Your task to perform on an android device: Open Google Chrome and open the bookmarks view Image 0: 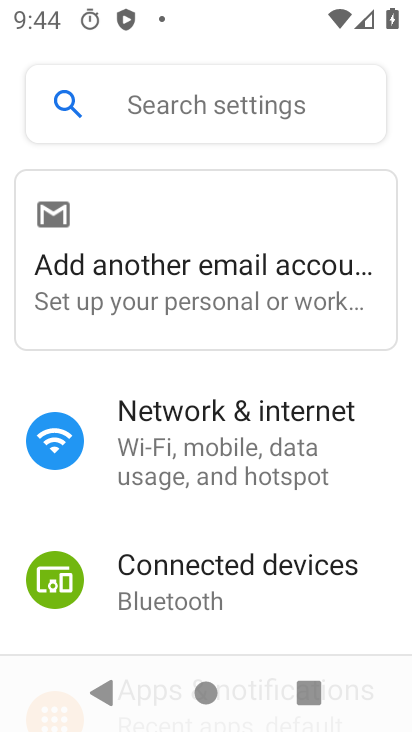
Step 0: press home button
Your task to perform on an android device: Open Google Chrome and open the bookmarks view Image 1: 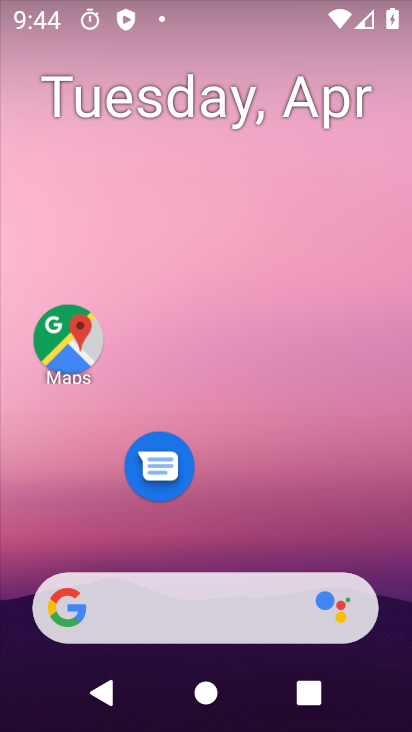
Step 1: drag from (323, 515) to (257, 111)
Your task to perform on an android device: Open Google Chrome and open the bookmarks view Image 2: 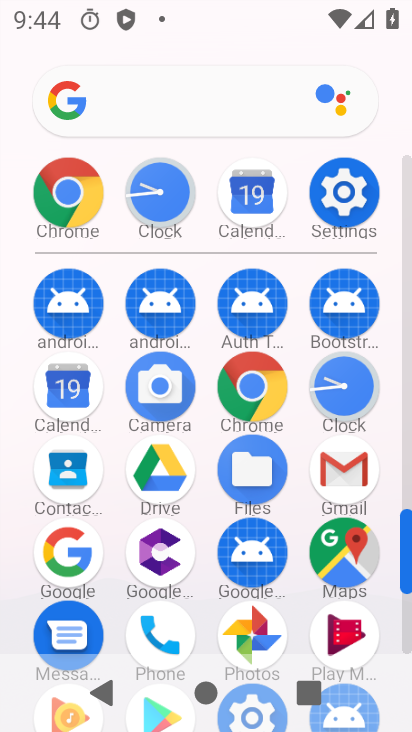
Step 2: click (247, 388)
Your task to perform on an android device: Open Google Chrome and open the bookmarks view Image 3: 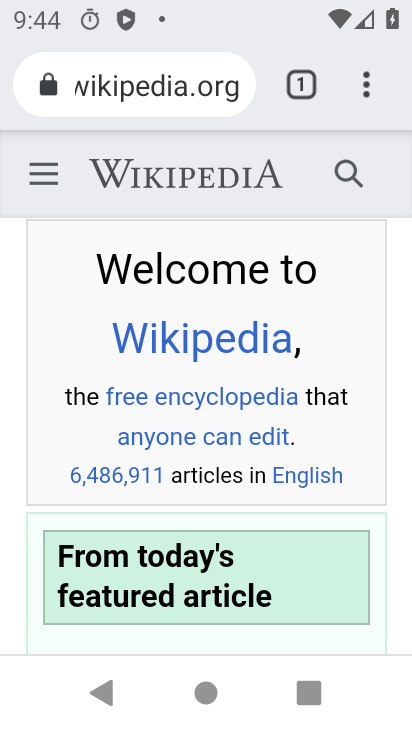
Step 3: click (371, 104)
Your task to perform on an android device: Open Google Chrome and open the bookmarks view Image 4: 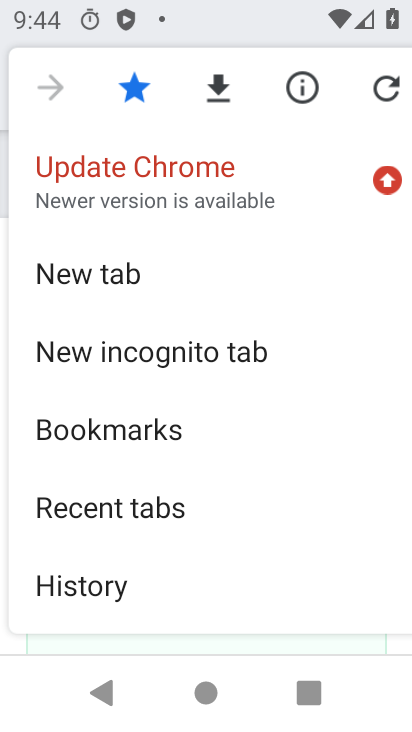
Step 4: drag from (324, 448) to (313, 301)
Your task to perform on an android device: Open Google Chrome and open the bookmarks view Image 5: 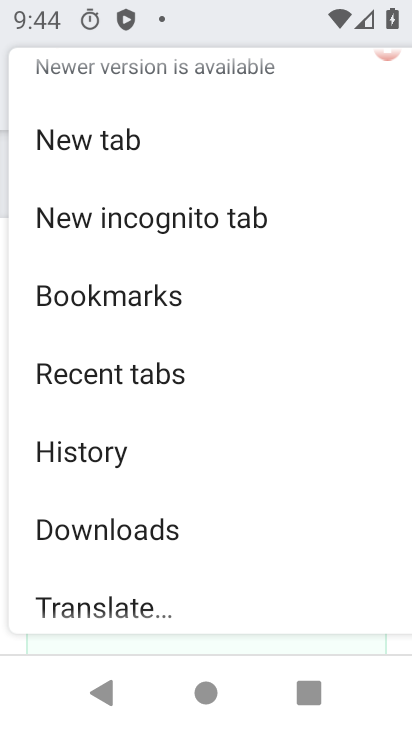
Step 5: drag from (255, 517) to (273, 185)
Your task to perform on an android device: Open Google Chrome and open the bookmarks view Image 6: 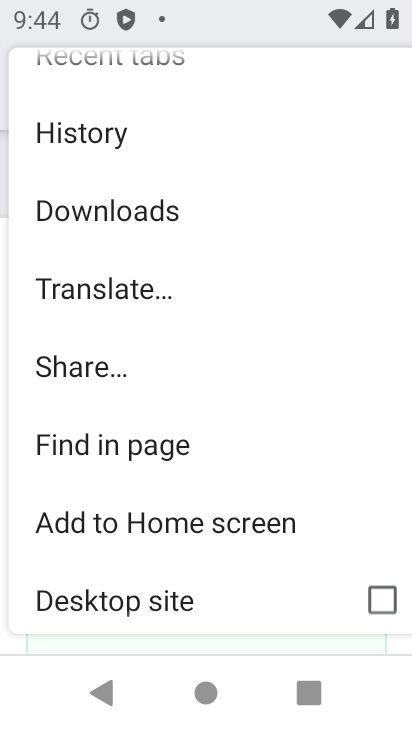
Step 6: drag from (256, 554) to (285, 307)
Your task to perform on an android device: Open Google Chrome and open the bookmarks view Image 7: 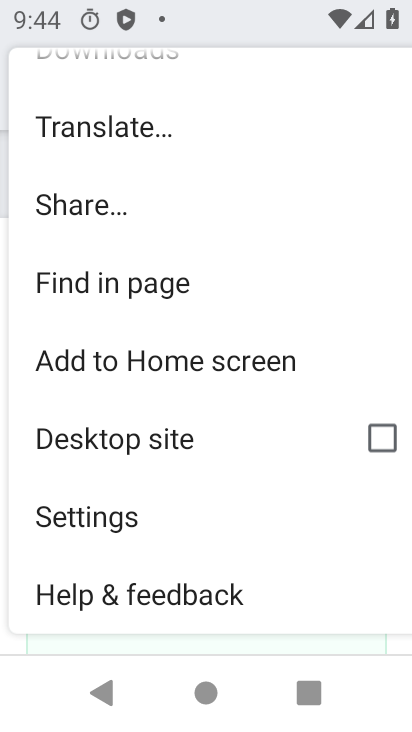
Step 7: drag from (261, 517) to (270, 267)
Your task to perform on an android device: Open Google Chrome and open the bookmarks view Image 8: 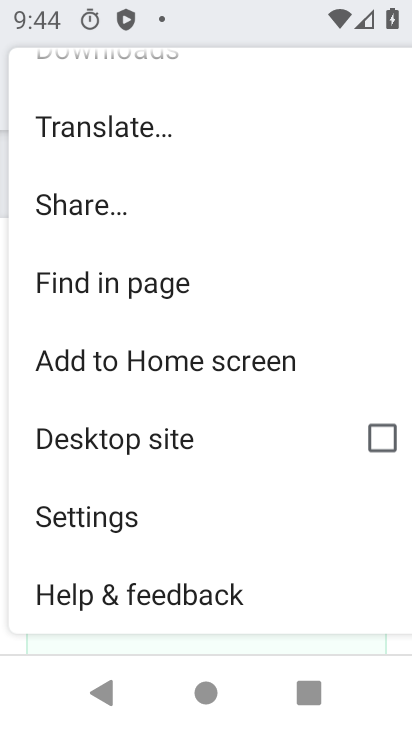
Step 8: drag from (402, 158) to (409, 423)
Your task to perform on an android device: Open Google Chrome and open the bookmarks view Image 9: 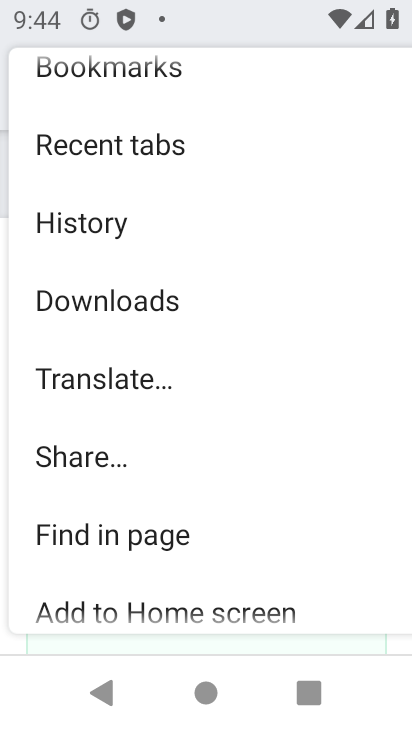
Step 9: drag from (313, 257) to (287, 536)
Your task to perform on an android device: Open Google Chrome and open the bookmarks view Image 10: 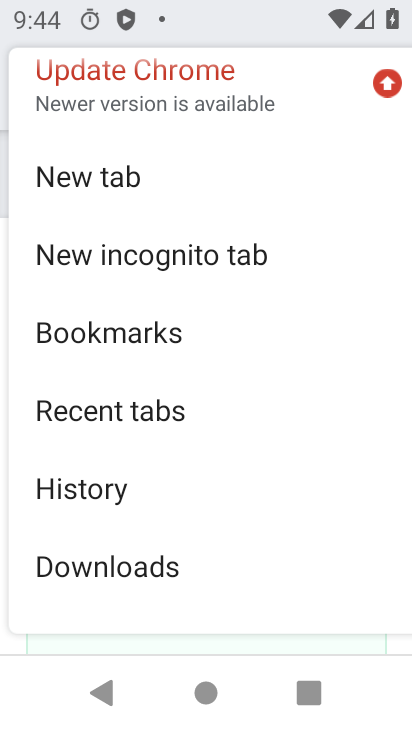
Step 10: click (207, 335)
Your task to perform on an android device: Open Google Chrome and open the bookmarks view Image 11: 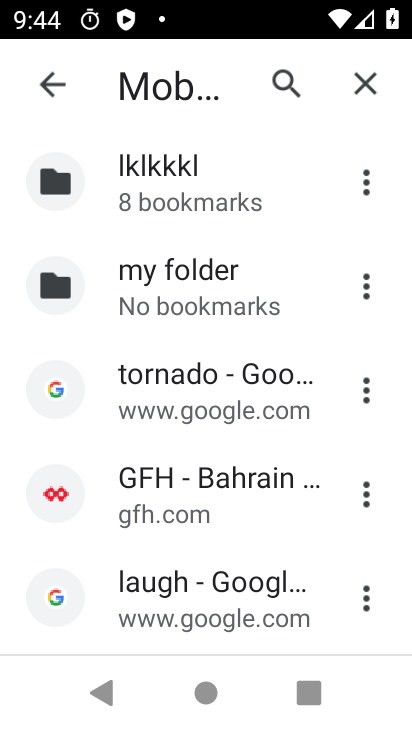
Step 11: task complete